Your task to perform on an android device: Go to network settings Image 0: 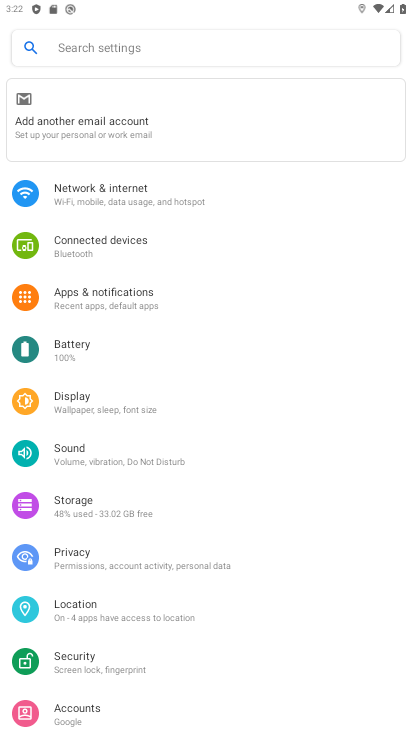
Step 0: click (109, 187)
Your task to perform on an android device: Go to network settings Image 1: 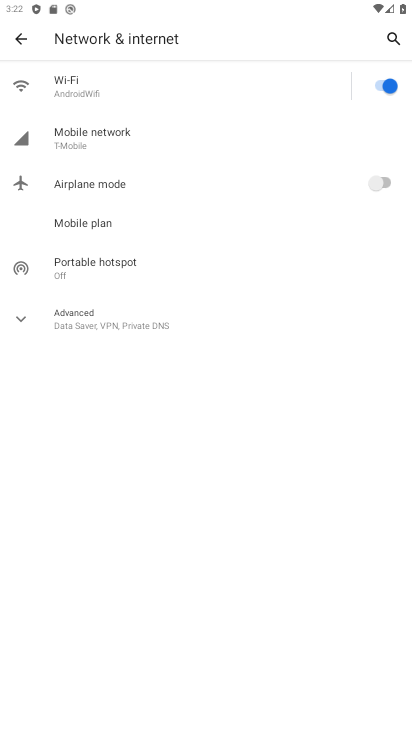
Step 1: task complete